Your task to perform on an android device: turn off location history Image 0: 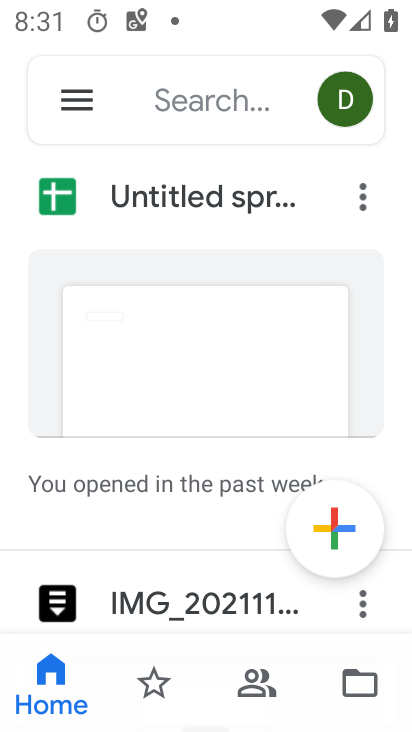
Step 0: press home button
Your task to perform on an android device: turn off location history Image 1: 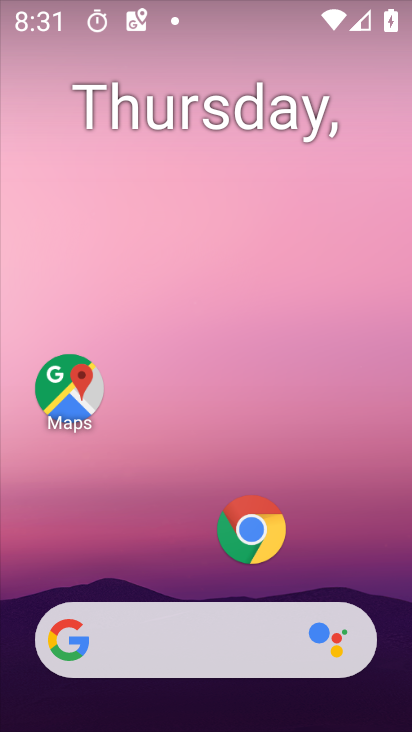
Step 1: drag from (197, 586) to (196, 68)
Your task to perform on an android device: turn off location history Image 2: 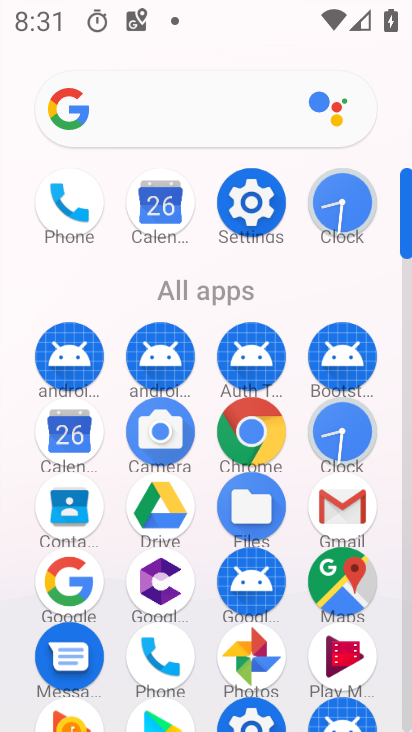
Step 2: click (248, 194)
Your task to perform on an android device: turn off location history Image 3: 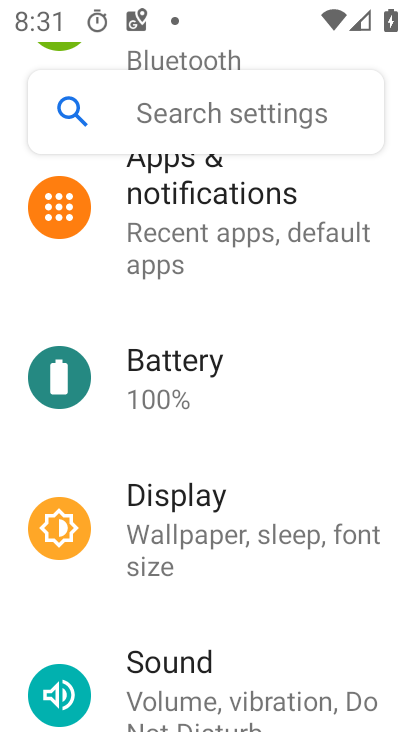
Step 3: drag from (241, 659) to (250, 181)
Your task to perform on an android device: turn off location history Image 4: 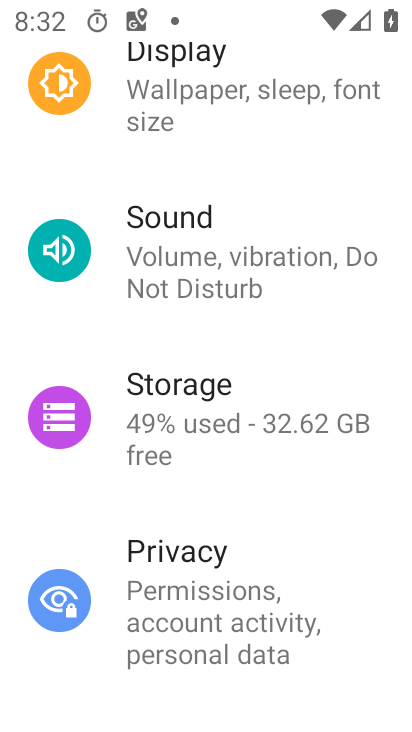
Step 4: drag from (205, 653) to (198, 180)
Your task to perform on an android device: turn off location history Image 5: 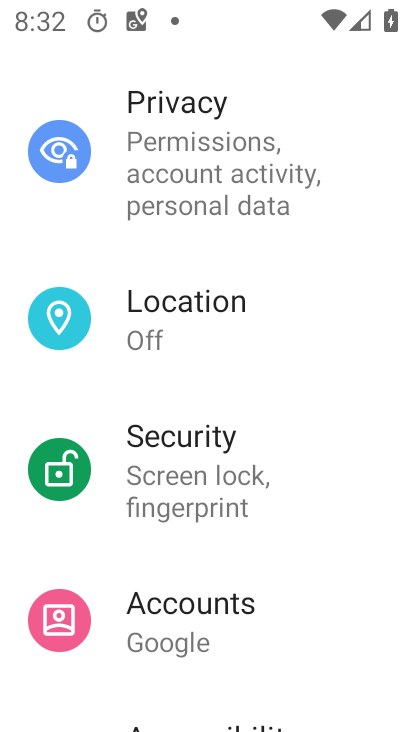
Step 5: click (187, 319)
Your task to perform on an android device: turn off location history Image 6: 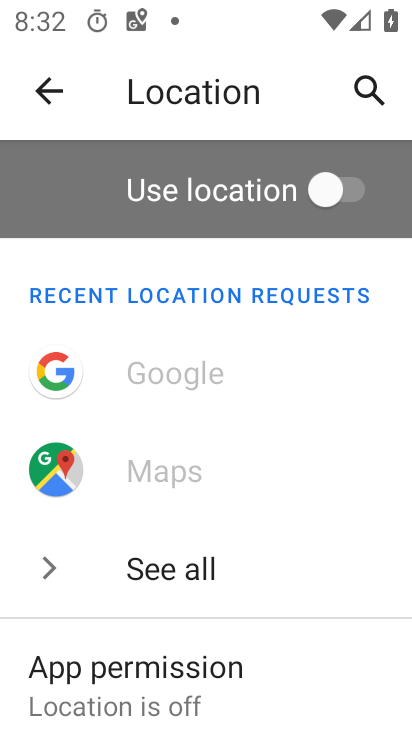
Step 6: drag from (242, 684) to (251, 232)
Your task to perform on an android device: turn off location history Image 7: 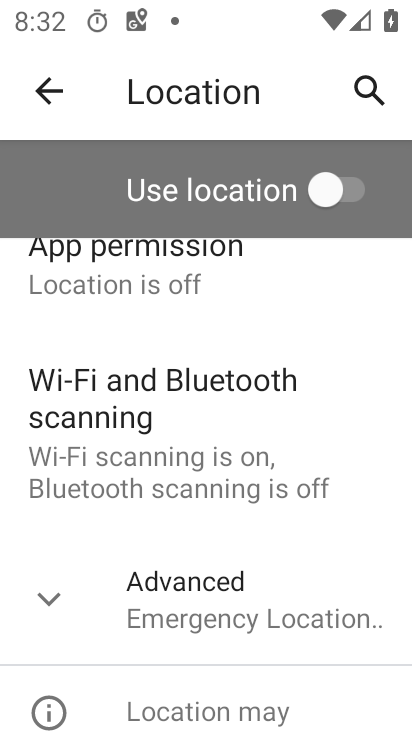
Step 7: click (54, 585)
Your task to perform on an android device: turn off location history Image 8: 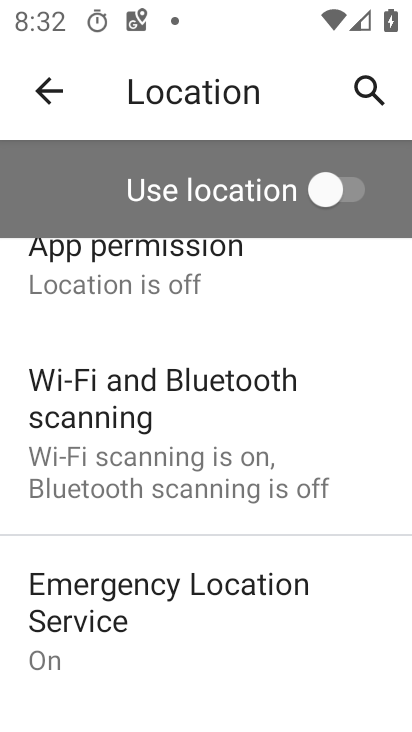
Step 8: task complete